Your task to perform on an android device: Open calendar and show me the first week of next month Image 0: 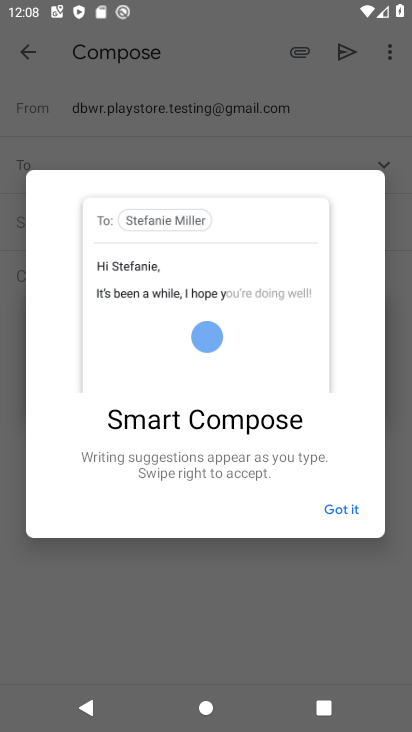
Step 0: press home button
Your task to perform on an android device: Open calendar and show me the first week of next month Image 1: 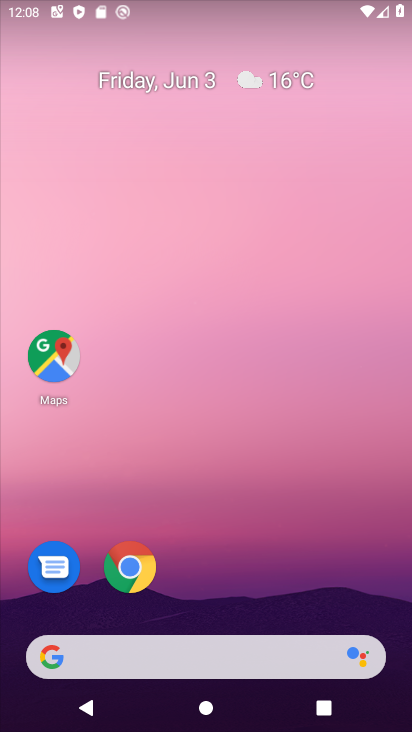
Step 1: drag from (292, 612) to (316, 68)
Your task to perform on an android device: Open calendar and show me the first week of next month Image 2: 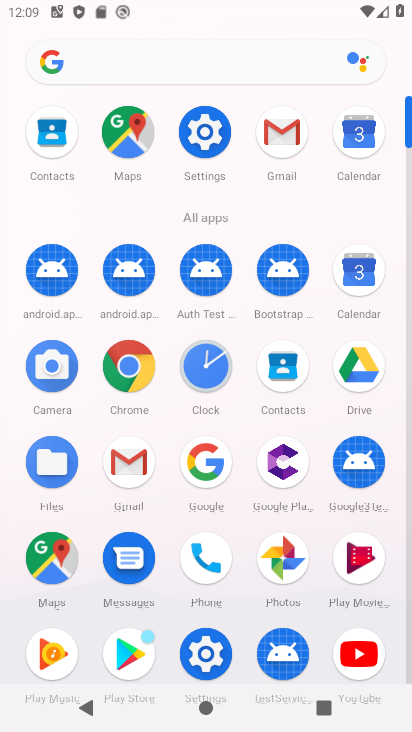
Step 2: click (349, 258)
Your task to perform on an android device: Open calendar and show me the first week of next month Image 3: 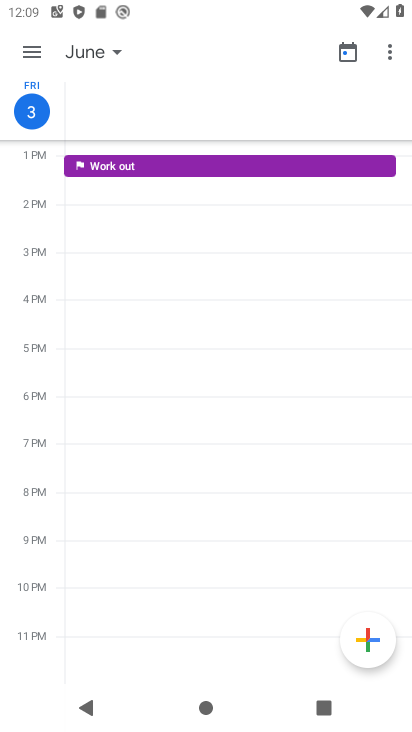
Step 3: click (13, 47)
Your task to perform on an android device: Open calendar and show me the first week of next month Image 4: 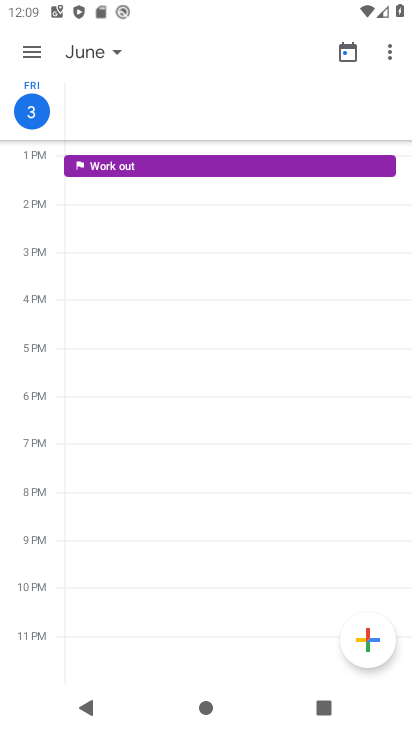
Step 4: click (37, 57)
Your task to perform on an android device: Open calendar and show me the first week of next month Image 5: 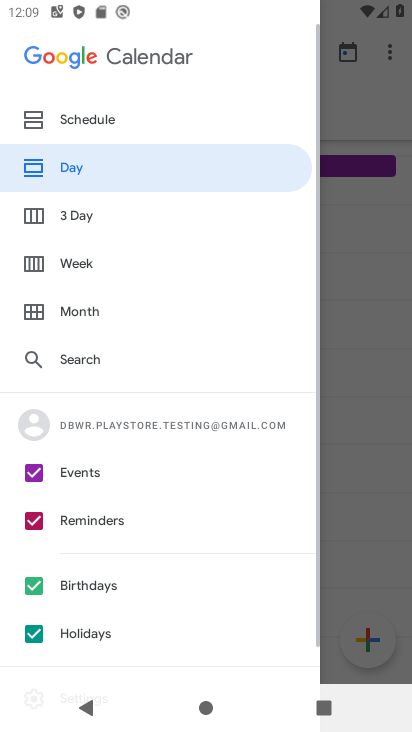
Step 5: click (69, 260)
Your task to perform on an android device: Open calendar and show me the first week of next month Image 6: 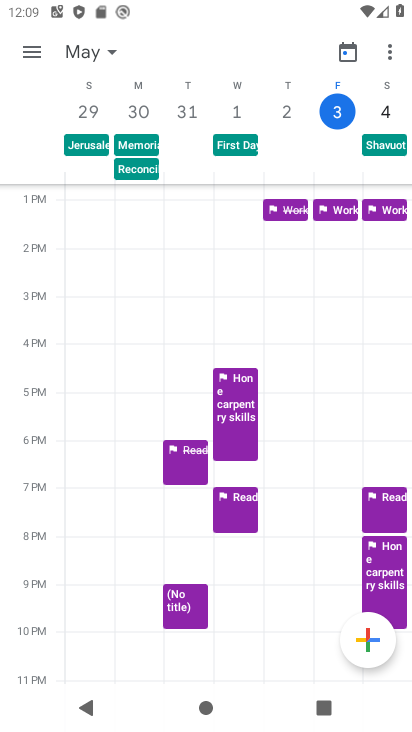
Step 6: click (109, 50)
Your task to perform on an android device: Open calendar and show me the first week of next month Image 7: 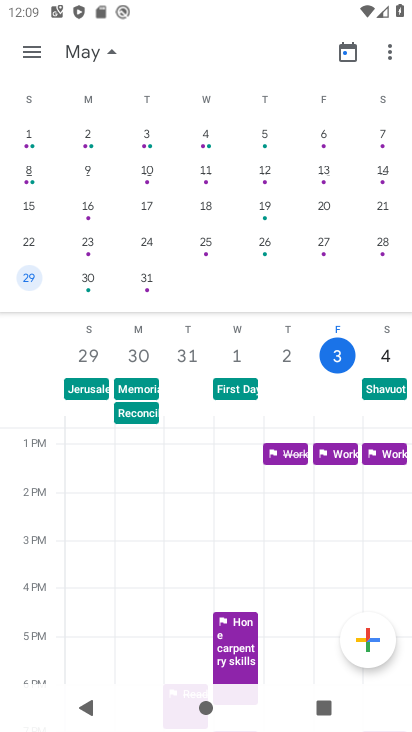
Step 7: drag from (316, 230) to (15, 167)
Your task to perform on an android device: Open calendar and show me the first week of next month Image 8: 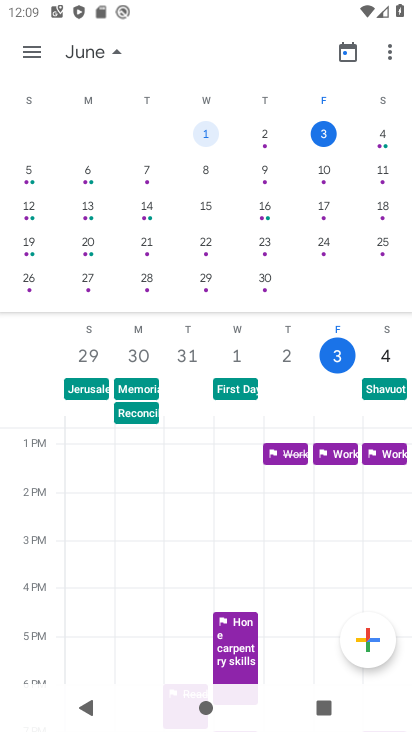
Step 8: drag from (363, 219) to (79, 237)
Your task to perform on an android device: Open calendar and show me the first week of next month Image 9: 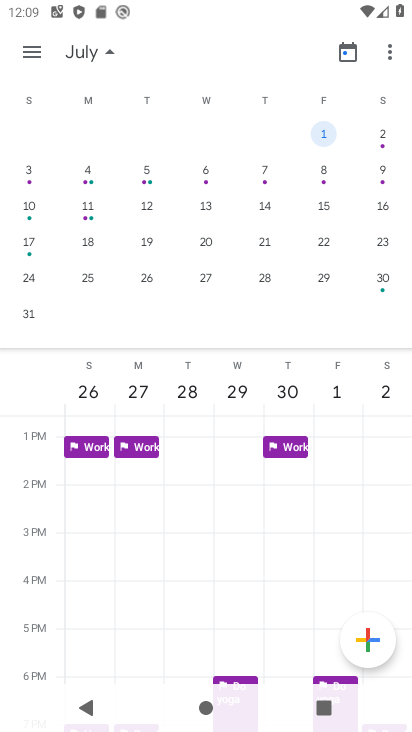
Step 9: click (86, 172)
Your task to perform on an android device: Open calendar and show me the first week of next month Image 10: 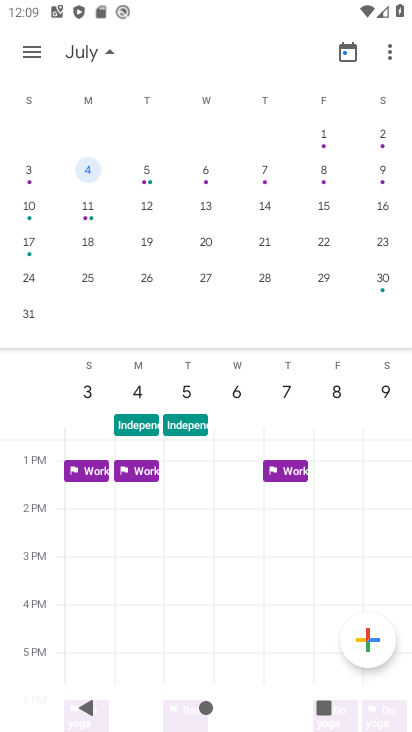
Step 10: task complete